Your task to perform on an android device: When is my next appointment? Image 0: 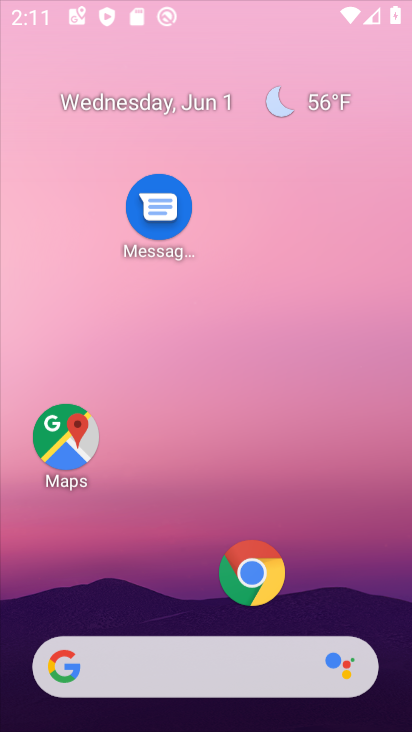
Step 0: click (410, 183)
Your task to perform on an android device: When is my next appointment? Image 1: 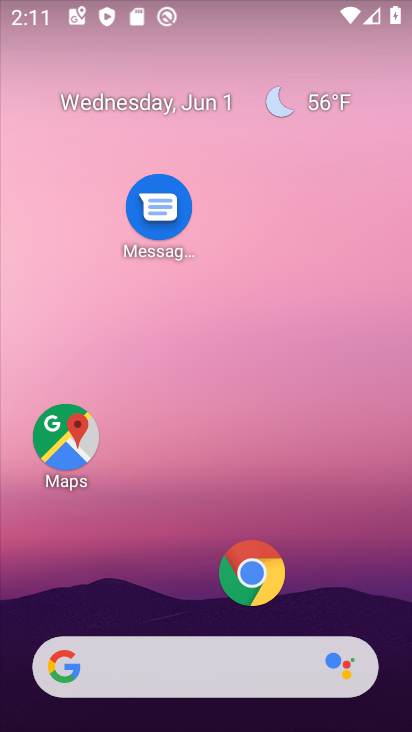
Step 1: drag from (160, 608) to (255, 5)
Your task to perform on an android device: When is my next appointment? Image 2: 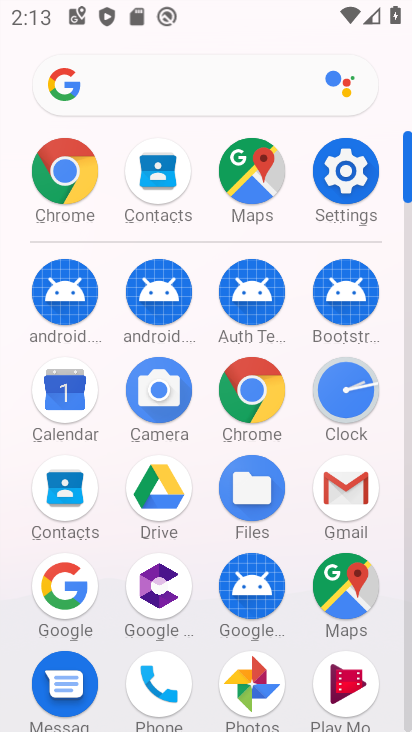
Step 2: click (100, 397)
Your task to perform on an android device: When is my next appointment? Image 3: 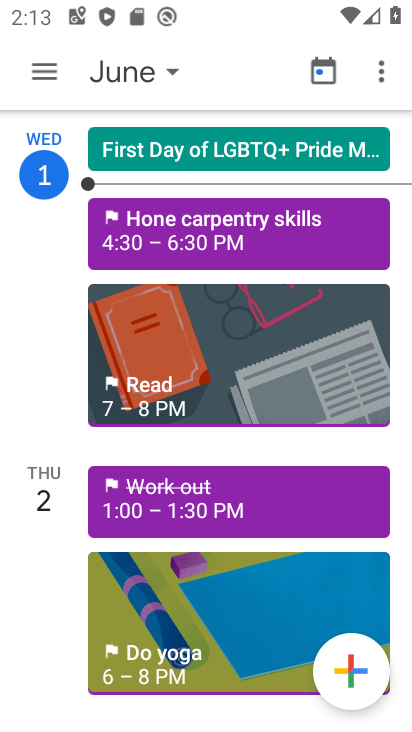
Step 3: click (100, 73)
Your task to perform on an android device: When is my next appointment? Image 4: 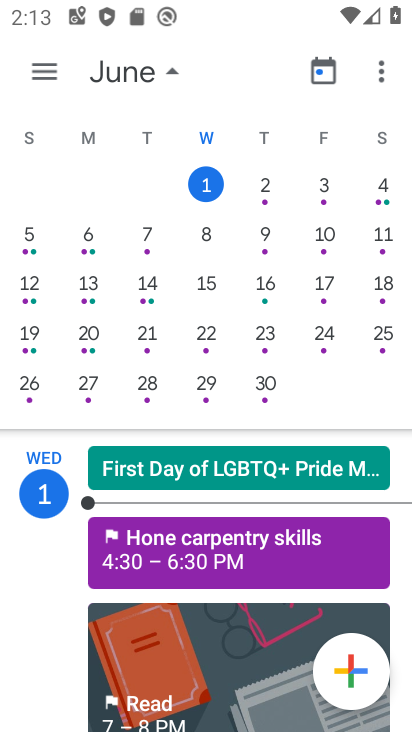
Step 4: click (200, 174)
Your task to perform on an android device: When is my next appointment? Image 5: 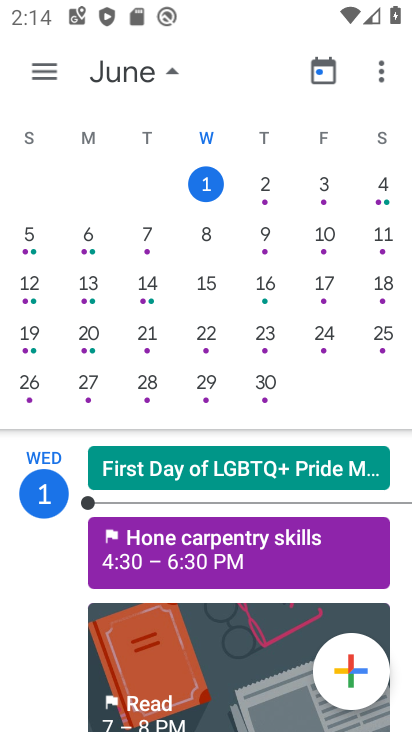
Step 5: press home button
Your task to perform on an android device: When is my next appointment? Image 6: 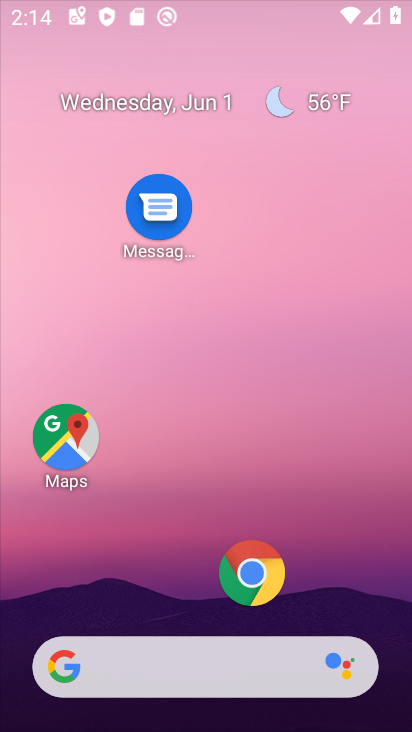
Step 6: drag from (271, 554) to (408, 144)
Your task to perform on an android device: When is my next appointment? Image 7: 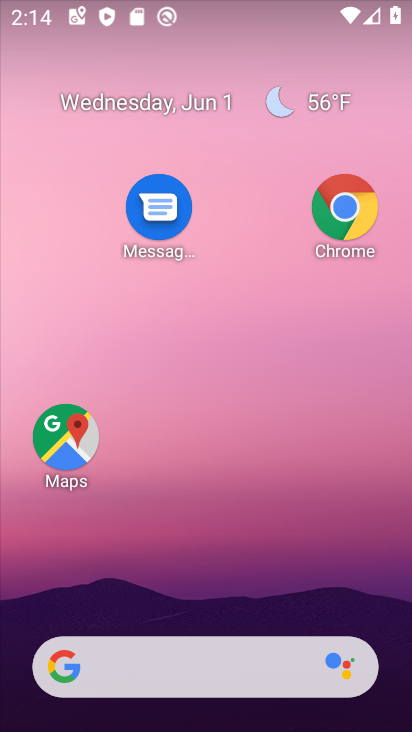
Step 7: click (135, 583)
Your task to perform on an android device: When is my next appointment? Image 8: 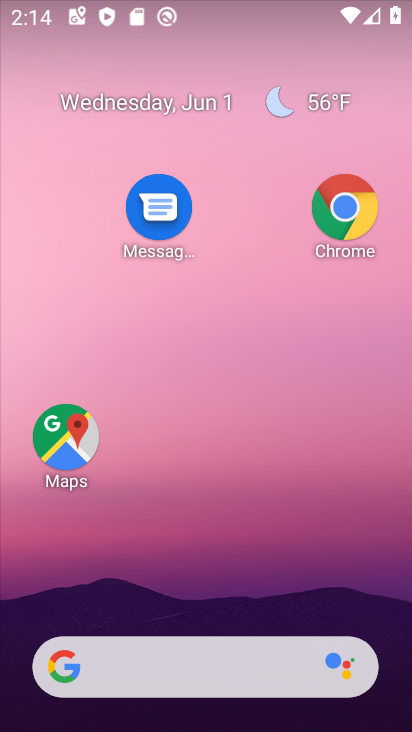
Step 8: drag from (267, 239) to (349, 66)
Your task to perform on an android device: When is my next appointment? Image 9: 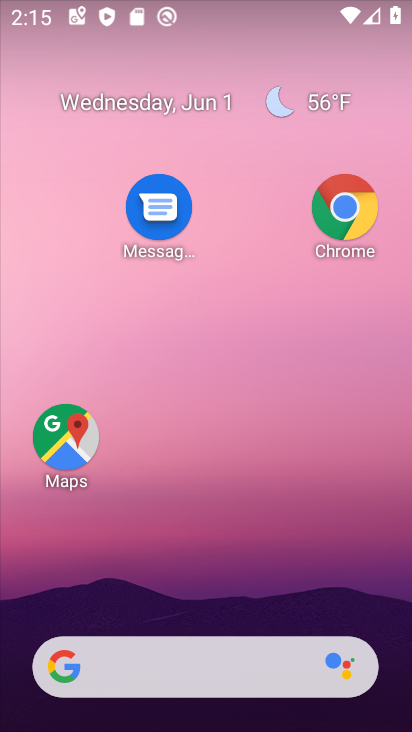
Step 9: drag from (261, 624) to (329, 90)
Your task to perform on an android device: When is my next appointment? Image 10: 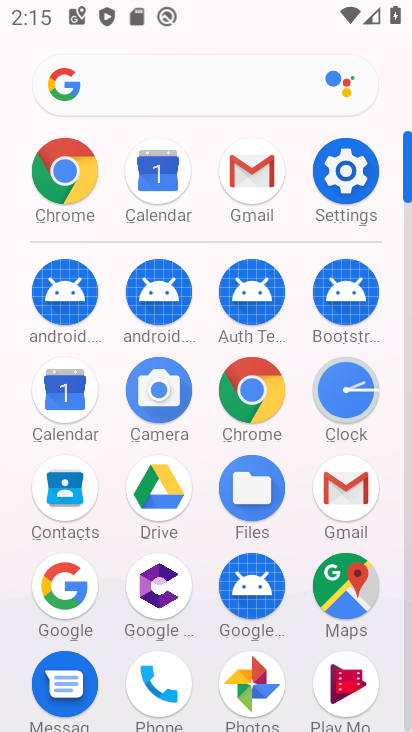
Step 10: click (62, 383)
Your task to perform on an android device: When is my next appointment? Image 11: 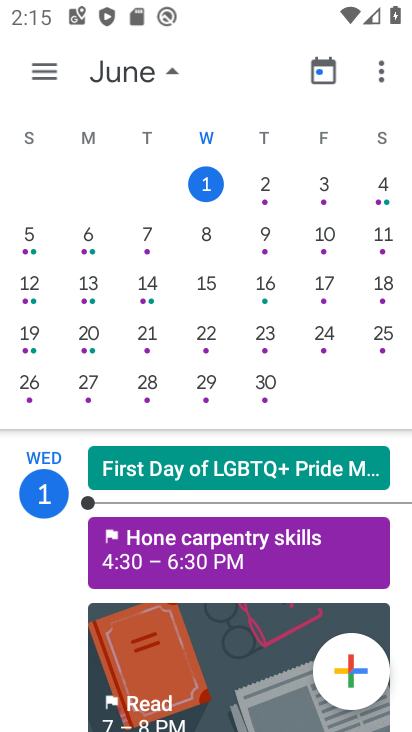
Step 11: drag from (226, 493) to (282, 317)
Your task to perform on an android device: When is my next appointment? Image 12: 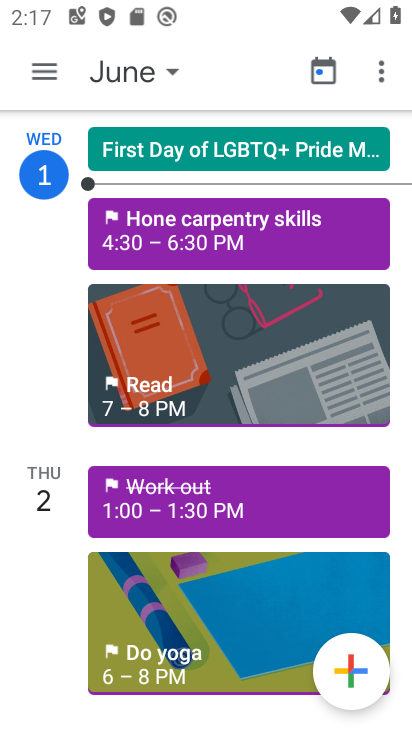
Step 12: click (410, 305)
Your task to perform on an android device: When is my next appointment? Image 13: 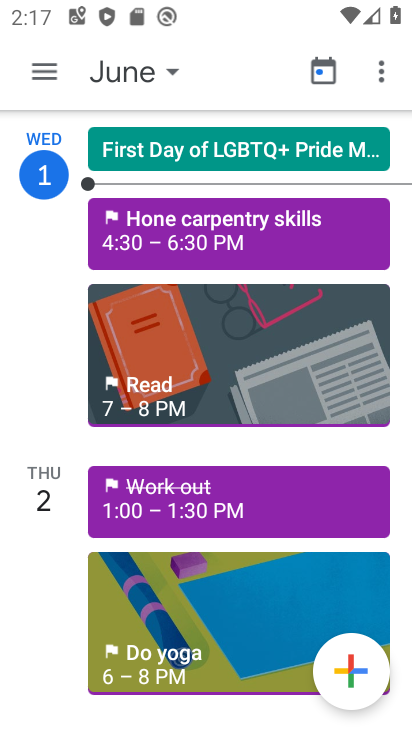
Step 13: task complete